Your task to perform on an android device: toggle javascript in the chrome app Image 0: 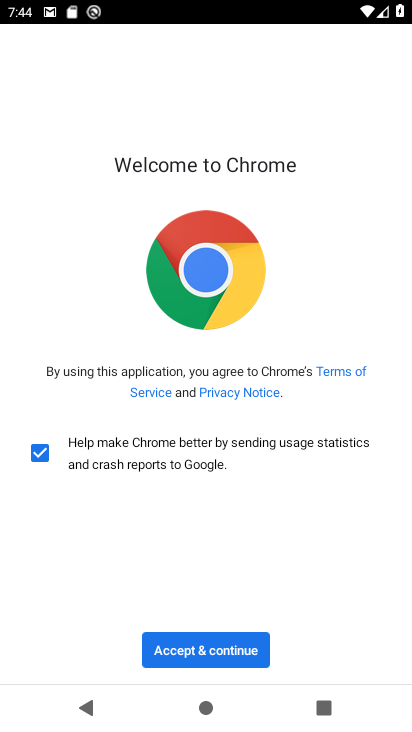
Step 0: click (183, 648)
Your task to perform on an android device: toggle javascript in the chrome app Image 1: 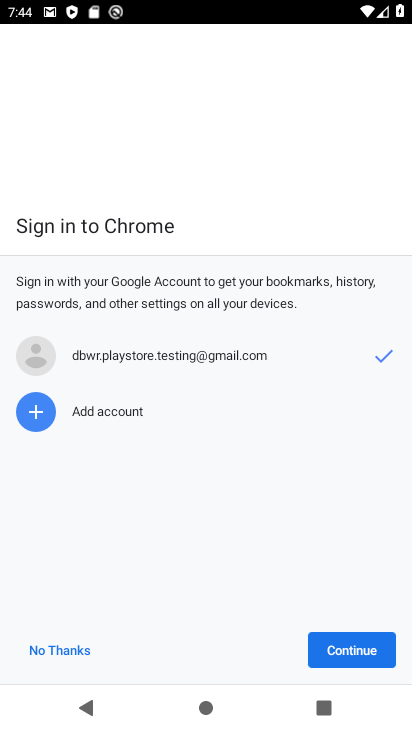
Step 1: click (338, 640)
Your task to perform on an android device: toggle javascript in the chrome app Image 2: 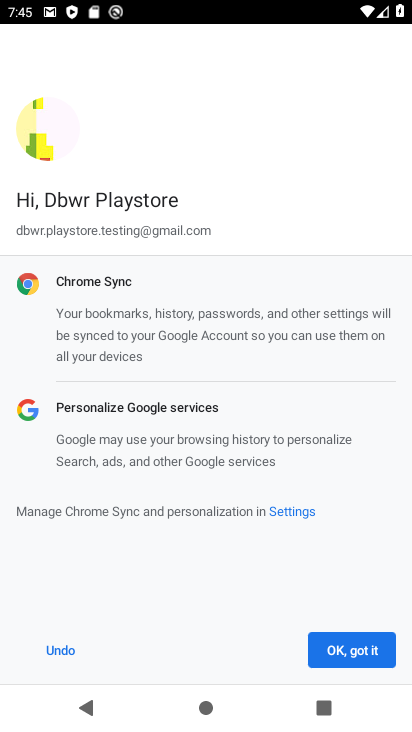
Step 2: click (338, 640)
Your task to perform on an android device: toggle javascript in the chrome app Image 3: 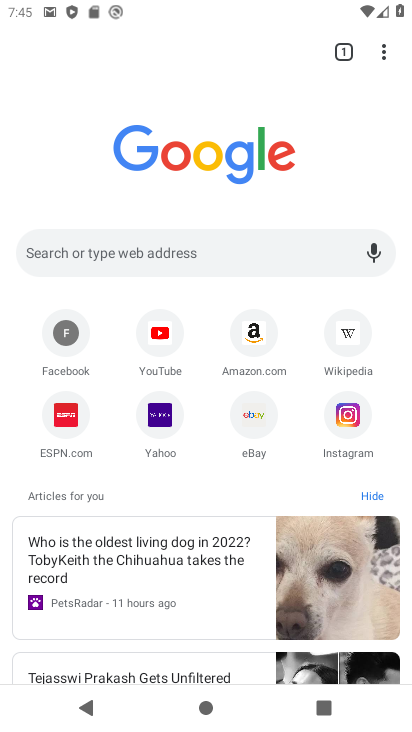
Step 3: drag from (383, 48) to (240, 439)
Your task to perform on an android device: toggle javascript in the chrome app Image 4: 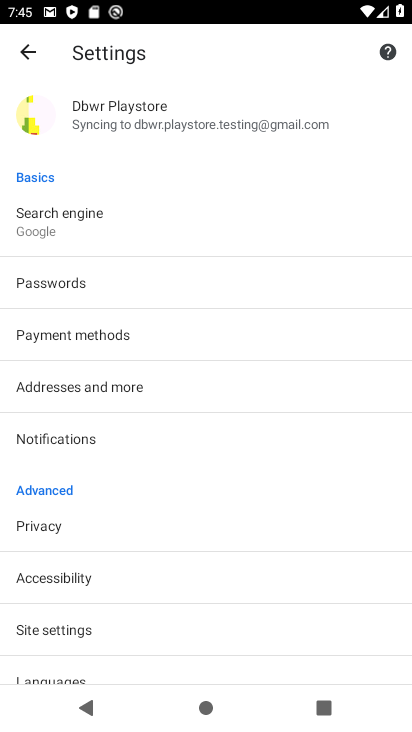
Step 4: click (128, 632)
Your task to perform on an android device: toggle javascript in the chrome app Image 5: 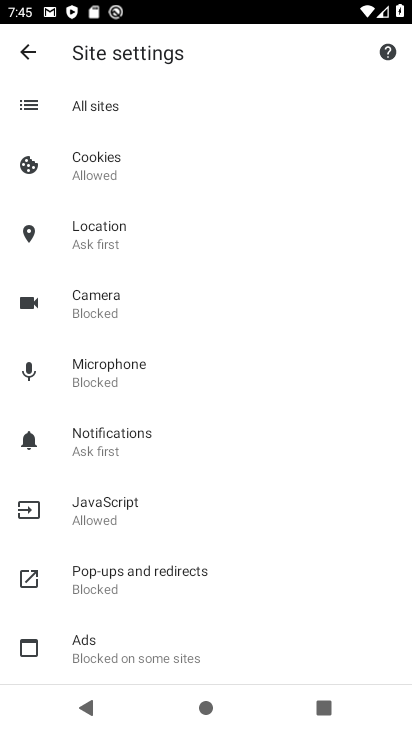
Step 5: click (101, 506)
Your task to perform on an android device: toggle javascript in the chrome app Image 6: 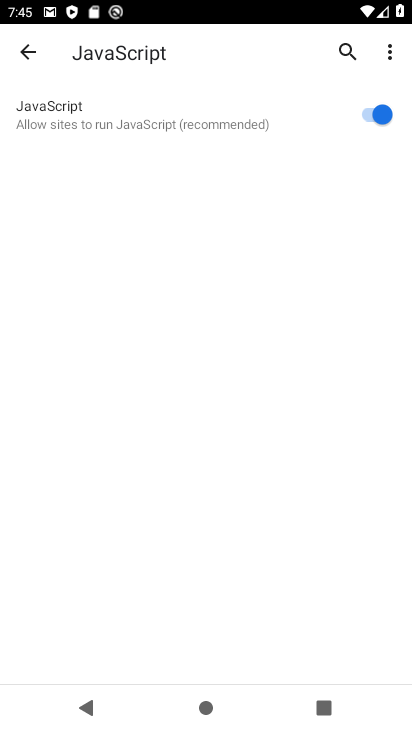
Step 6: click (375, 110)
Your task to perform on an android device: toggle javascript in the chrome app Image 7: 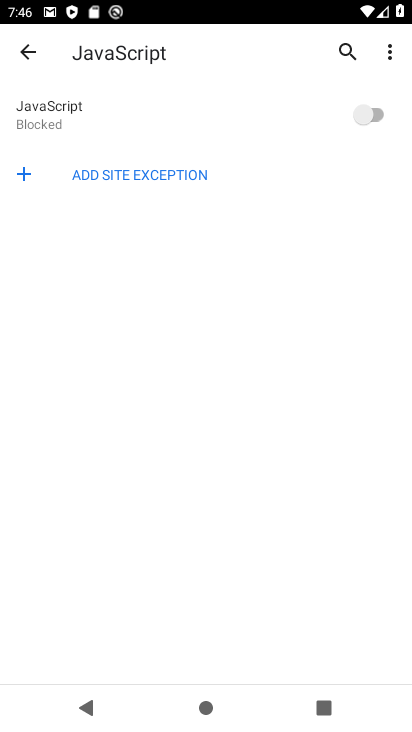
Step 7: task complete